Your task to perform on an android device: How do I get to the nearest McDonalds? Image 0: 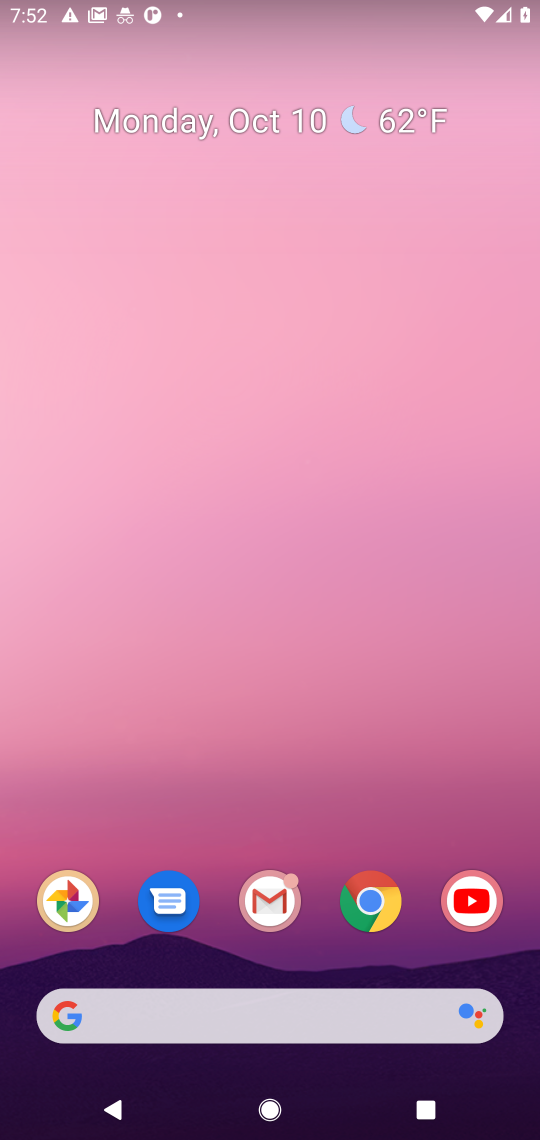
Step 0: drag from (335, 984) to (292, 52)
Your task to perform on an android device: How do I get to the nearest McDonalds? Image 1: 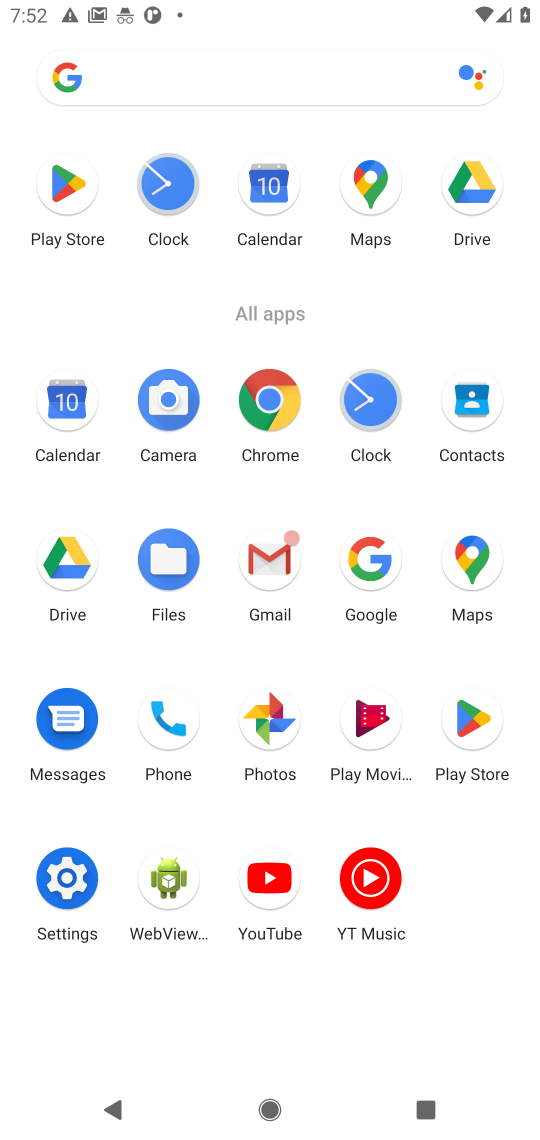
Step 1: click (375, 588)
Your task to perform on an android device: How do I get to the nearest McDonalds? Image 2: 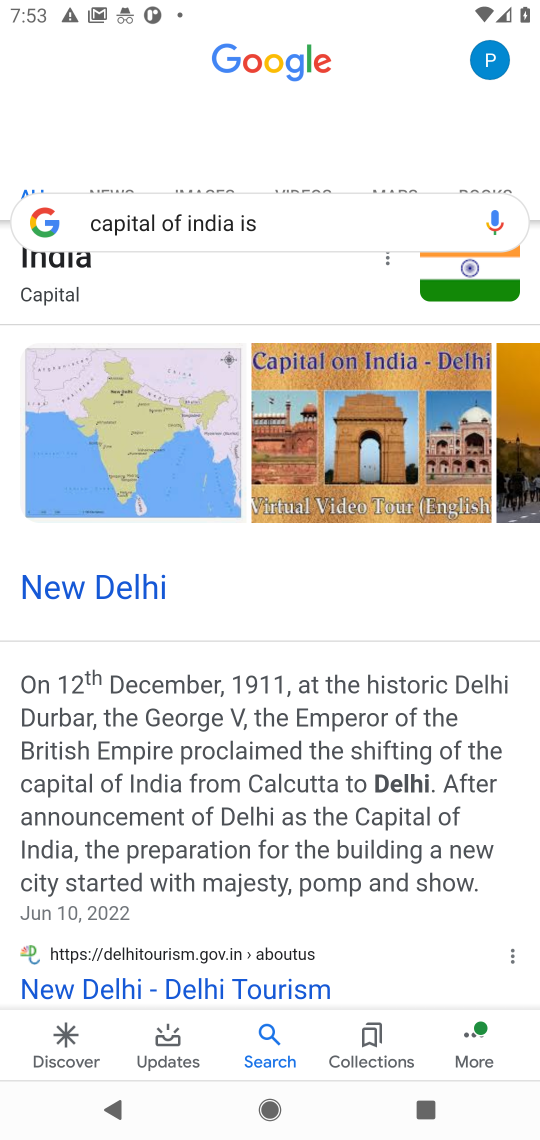
Step 2: click (326, 223)
Your task to perform on an android device: How do I get to the nearest McDonalds? Image 3: 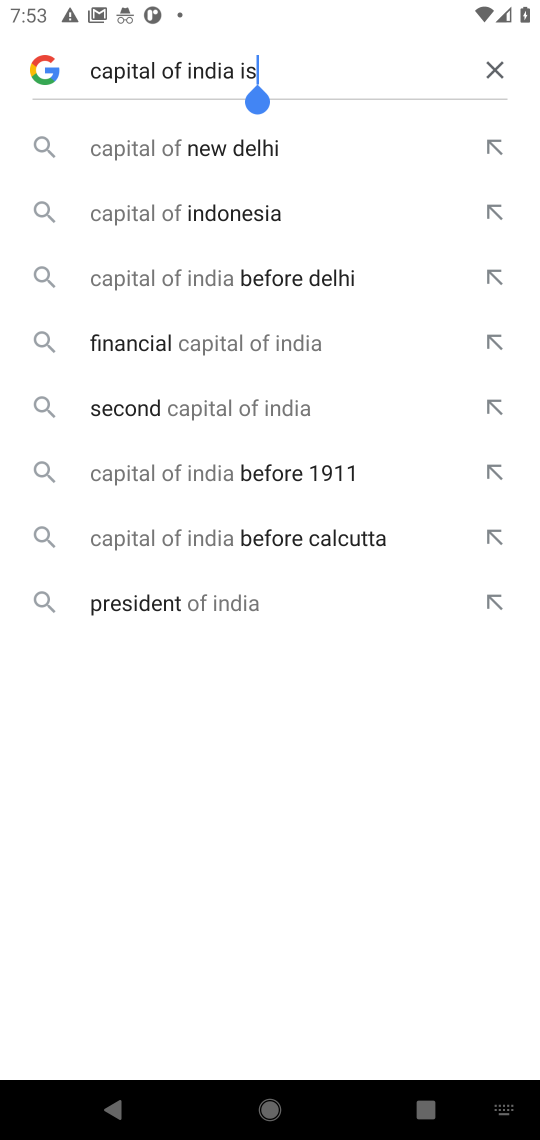
Step 3: click (499, 75)
Your task to perform on an android device: How do I get to the nearest McDonalds? Image 4: 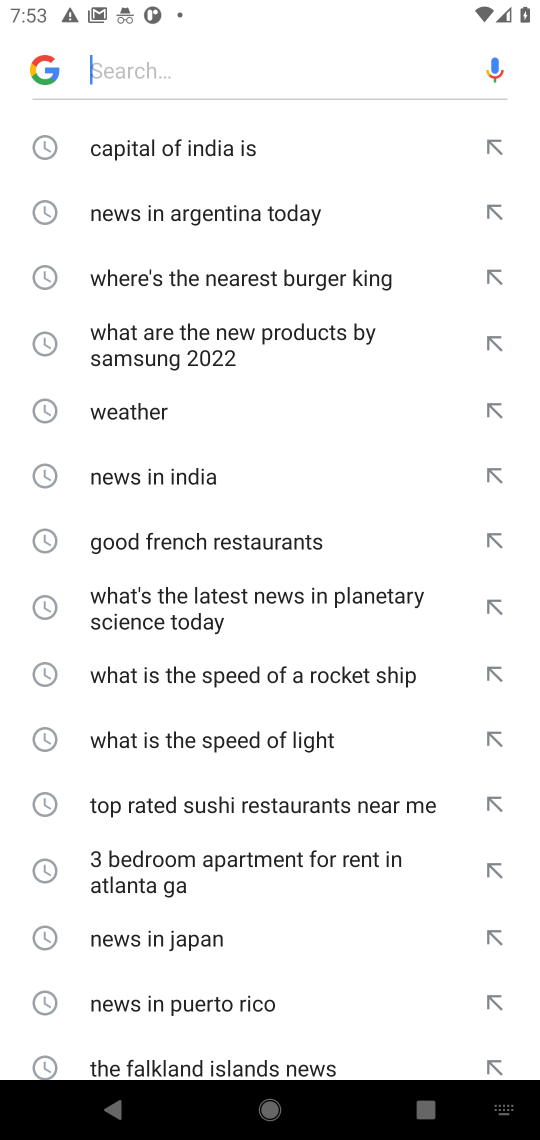
Step 4: drag from (499, 75) to (421, 64)
Your task to perform on an android device: How do I get to the nearest McDonalds? Image 5: 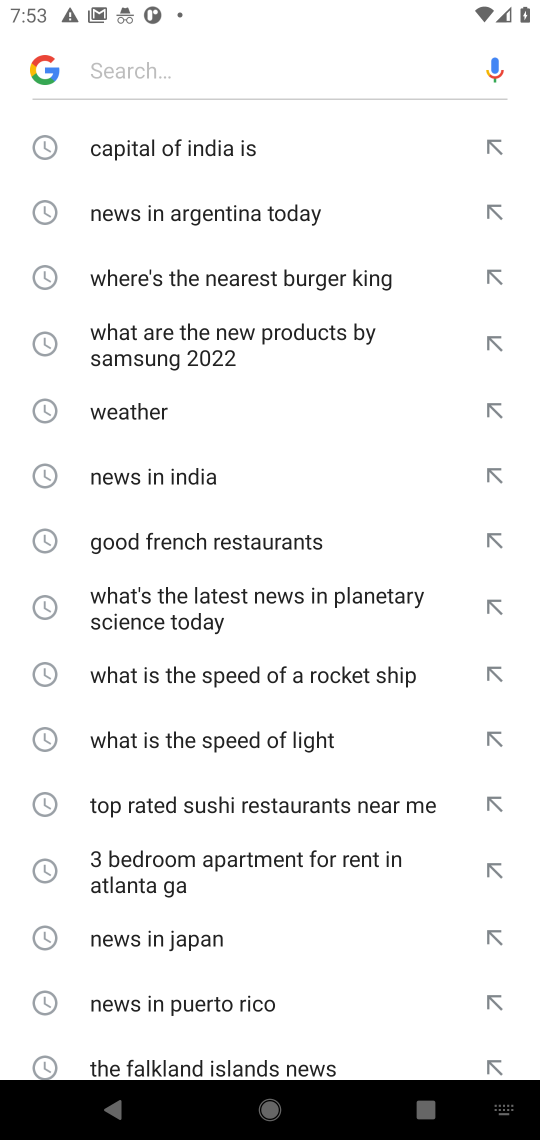
Step 5: type "nearest McDonalds?"
Your task to perform on an android device: How do I get to the nearest McDonalds? Image 6: 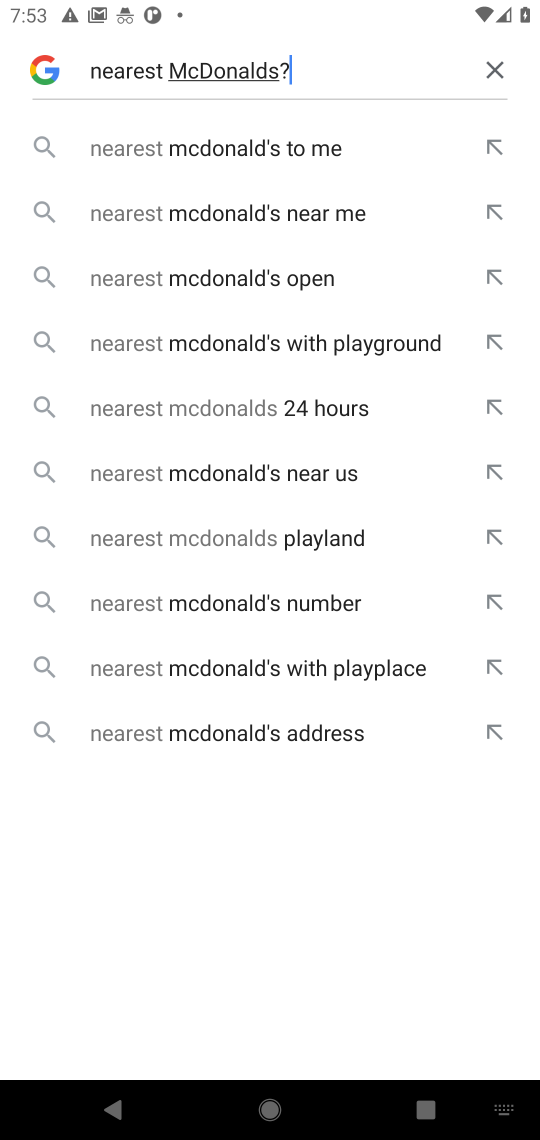
Step 6: click (275, 210)
Your task to perform on an android device: How do I get to the nearest McDonalds? Image 7: 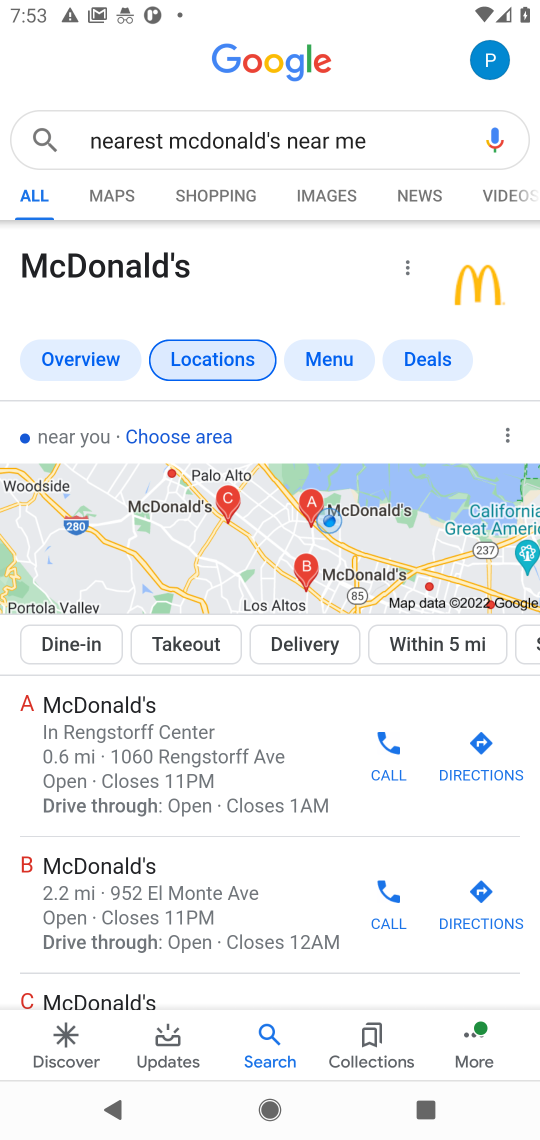
Step 7: click (487, 747)
Your task to perform on an android device: How do I get to the nearest McDonalds? Image 8: 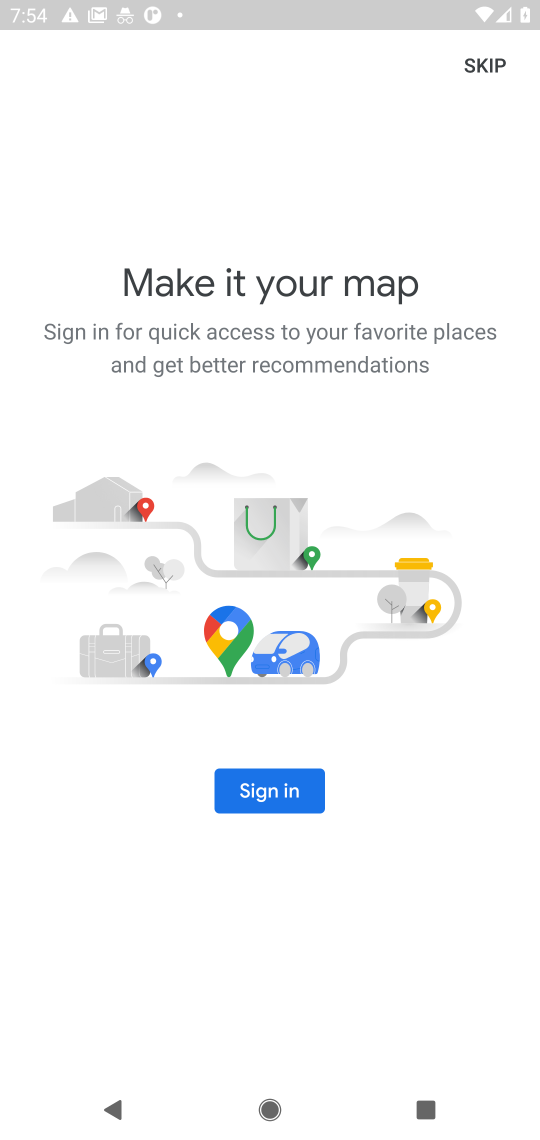
Step 8: click (481, 58)
Your task to perform on an android device: How do I get to the nearest McDonalds? Image 9: 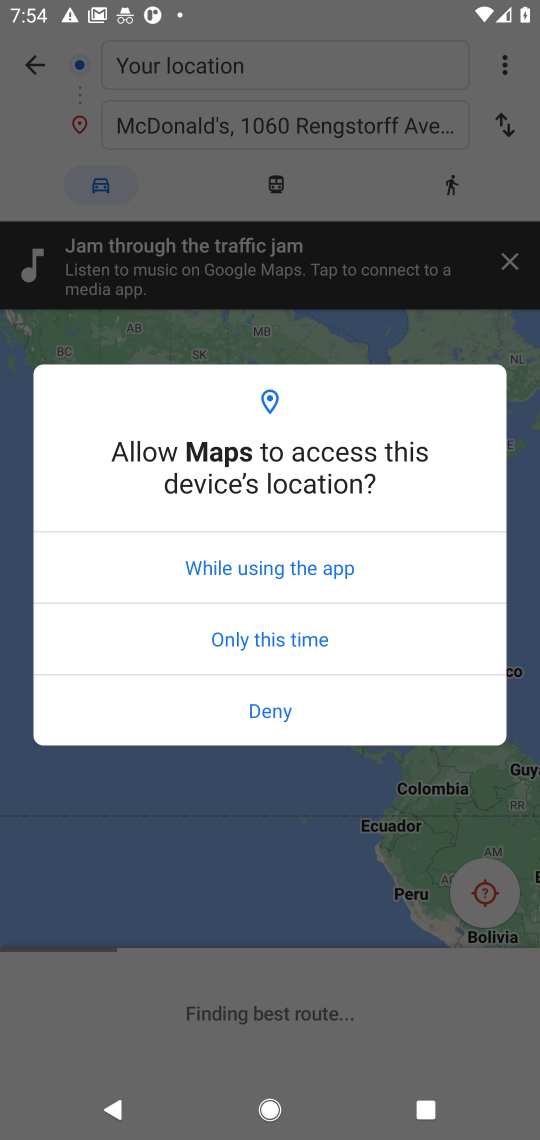
Step 9: click (289, 562)
Your task to perform on an android device: How do I get to the nearest McDonalds? Image 10: 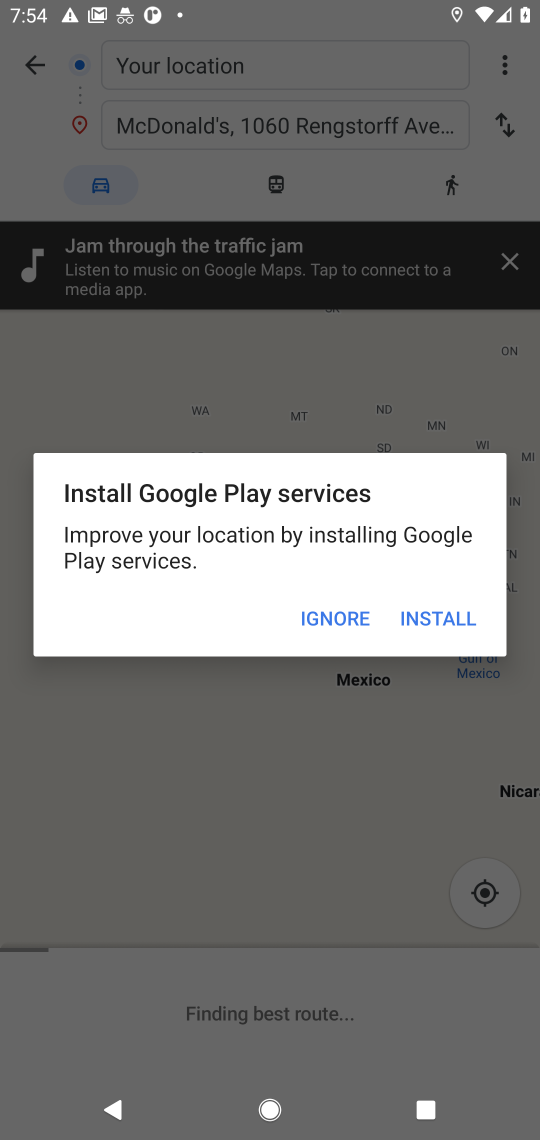
Step 10: click (360, 618)
Your task to perform on an android device: How do I get to the nearest McDonalds? Image 11: 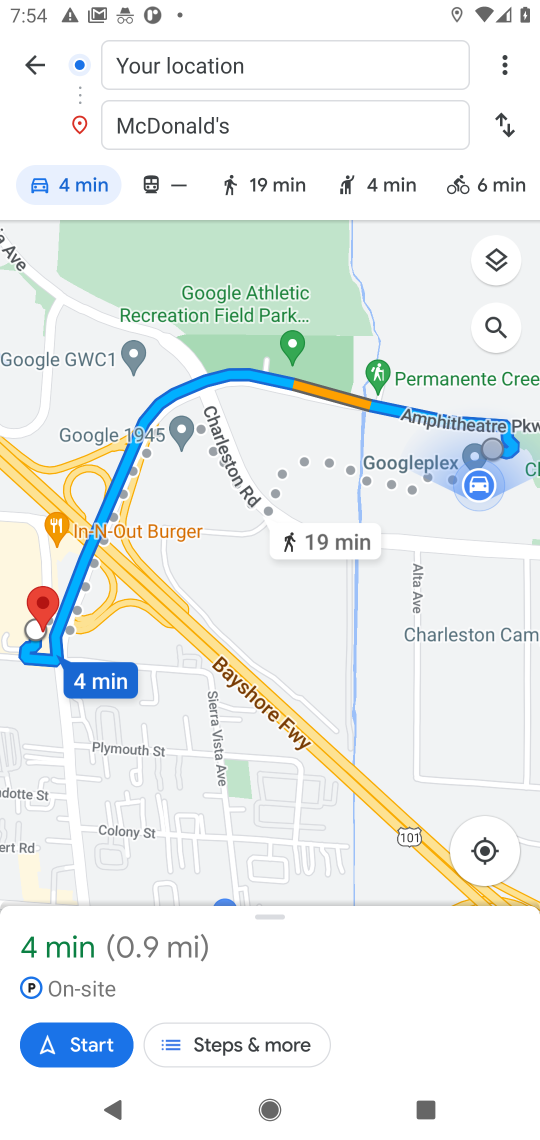
Step 11: task complete